Your task to perform on an android device: Open settings on Google Maps Image 0: 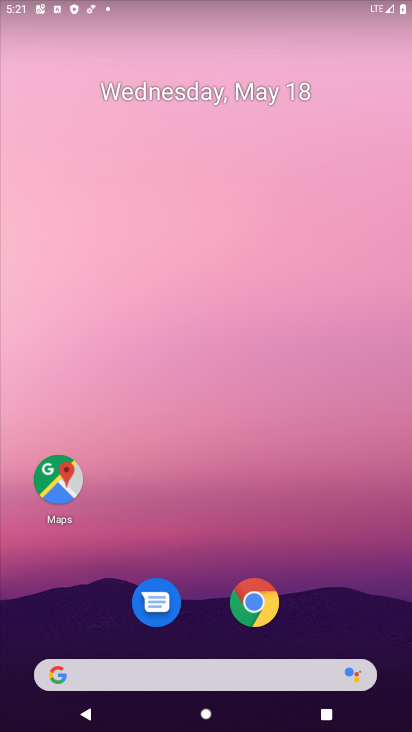
Step 0: drag from (272, 630) to (341, 3)
Your task to perform on an android device: Open settings on Google Maps Image 1: 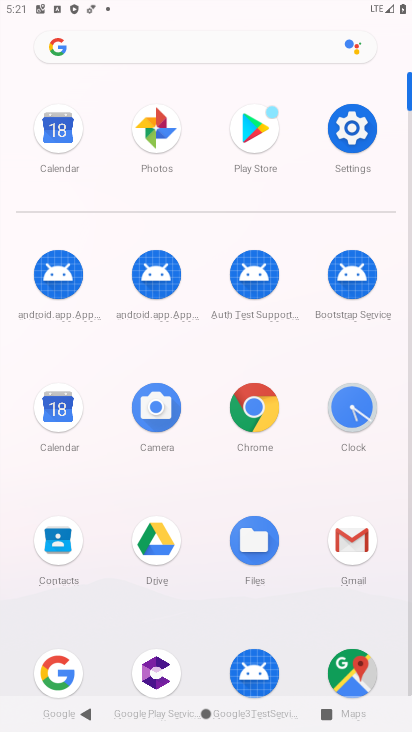
Step 1: drag from (333, 591) to (323, 419)
Your task to perform on an android device: Open settings on Google Maps Image 2: 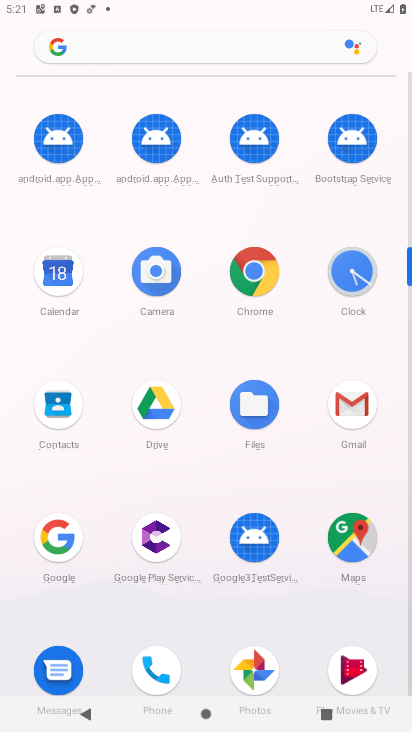
Step 2: click (351, 523)
Your task to perform on an android device: Open settings on Google Maps Image 3: 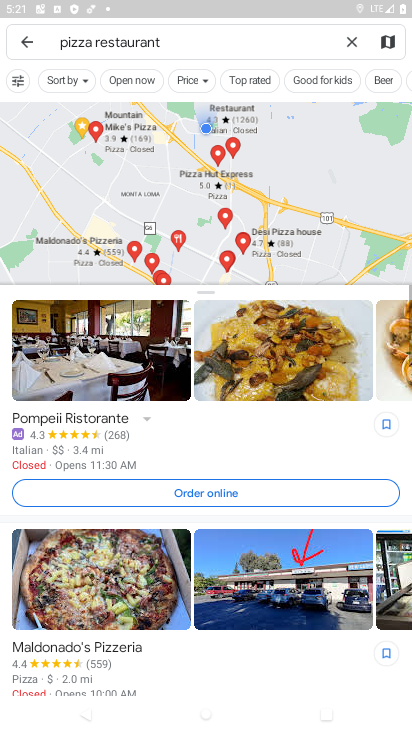
Step 3: press back button
Your task to perform on an android device: Open settings on Google Maps Image 4: 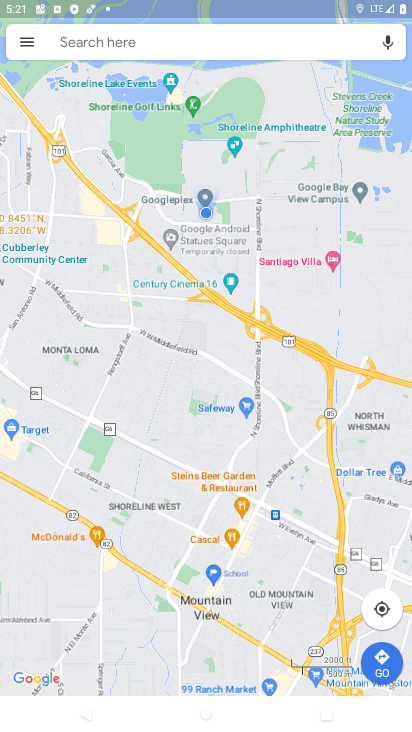
Step 4: click (22, 42)
Your task to perform on an android device: Open settings on Google Maps Image 5: 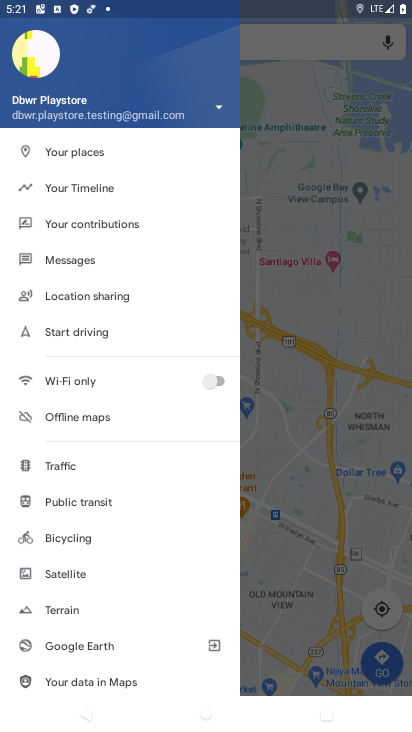
Step 5: click (99, 194)
Your task to perform on an android device: Open settings on Google Maps Image 6: 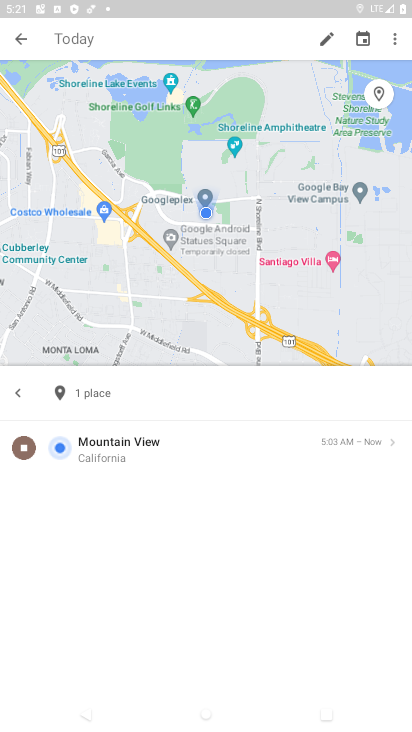
Step 6: click (399, 42)
Your task to perform on an android device: Open settings on Google Maps Image 7: 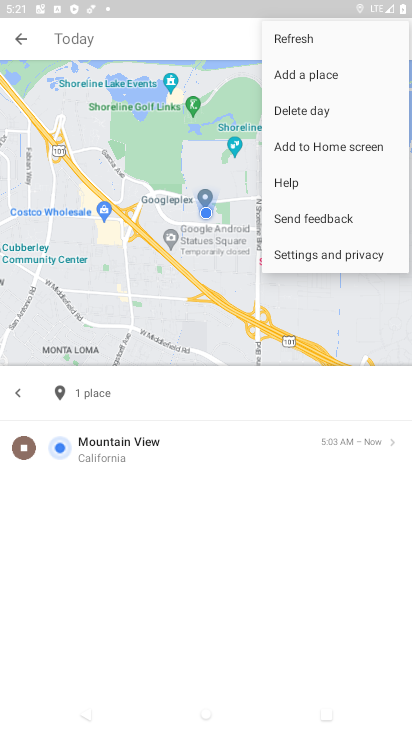
Step 7: click (309, 261)
Your task to perform on an android device: Open settings on Google Maps Image 8: 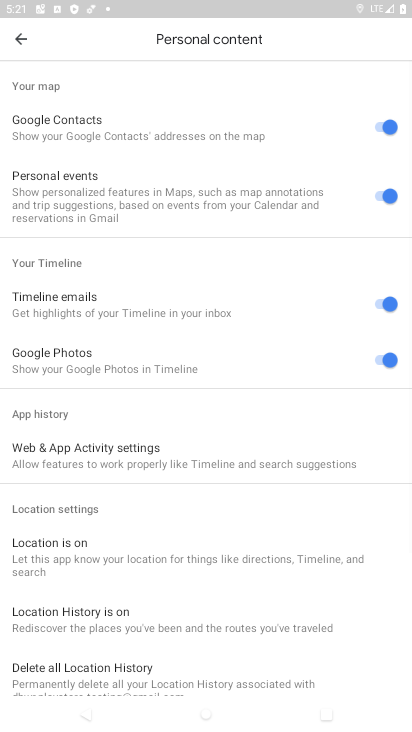
Step 8: task complete